Your task to perform on an android device: turn on translation in the chrome app Image 0: 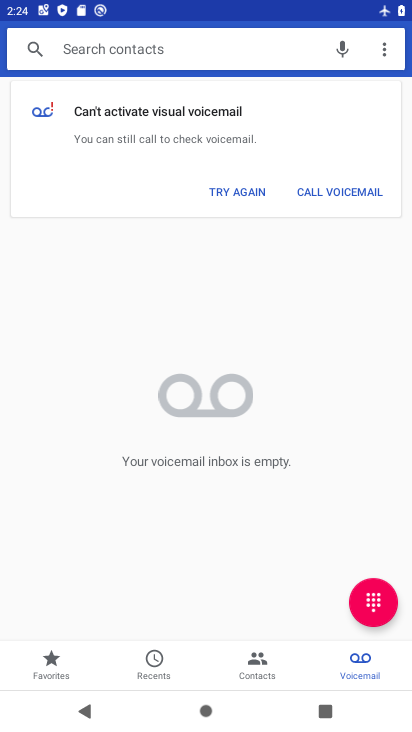
Step 0: press home button
Your task to perform on an android device: turn on translation in the chrome app Image 1: 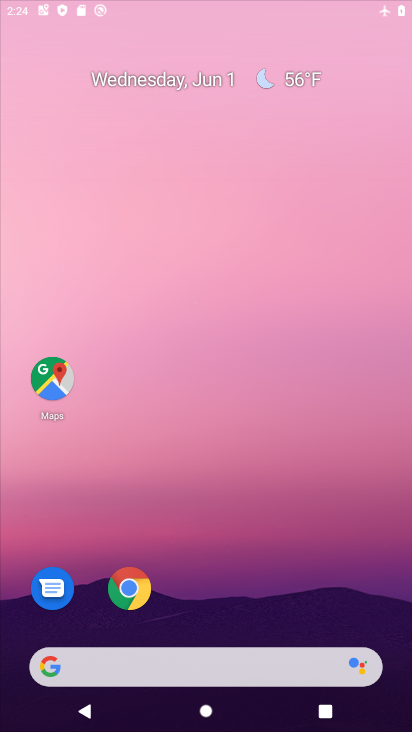
Step 1: drag from (305, 611) to (219, 114)
Your task to perform on an android device: turn on translation in the chrome app Image 2: 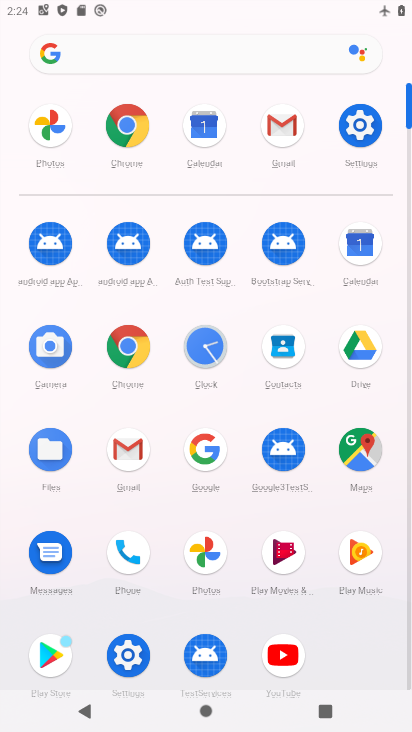
Step 2: click (134, 348)
Your task to perform on an android device: turn on translation in the chrome app Image 3: 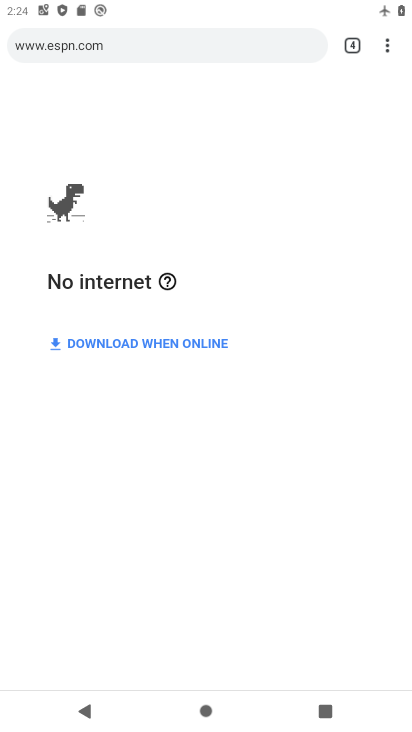
Step 3: click (393, 48)
Your task to perform on an android device: turn on translation in the chrome app Image 4: 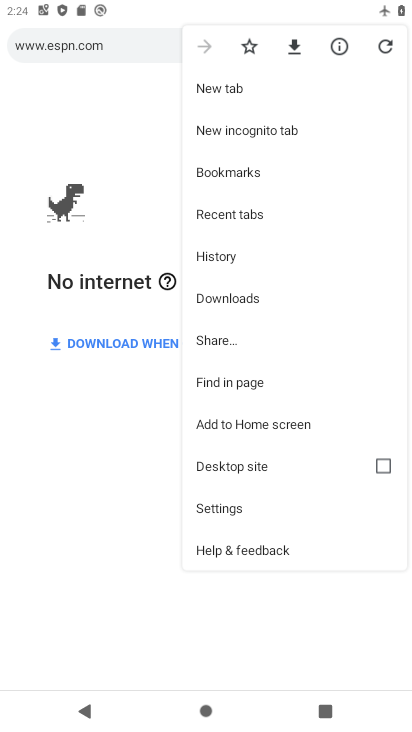
Step 4: click (272, 512)
Your task to perform on an android device: turn on translation in the chrome app Image 5: 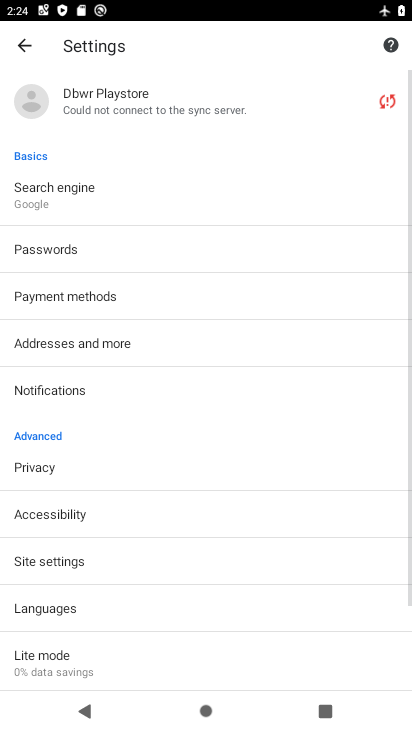
Step 5: click (92, 611)
Your task to perform on an android device: turn on translation in the chrome app Image 6: 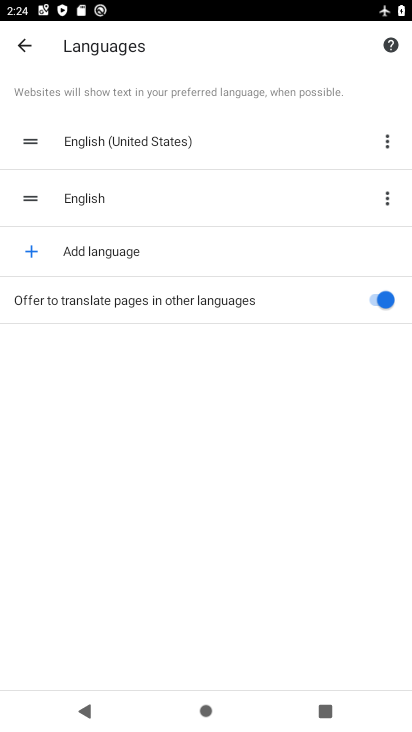
Step 6: task complete